Your task to perform on an android device: delete the emails in spam in the gmail app Image 0: 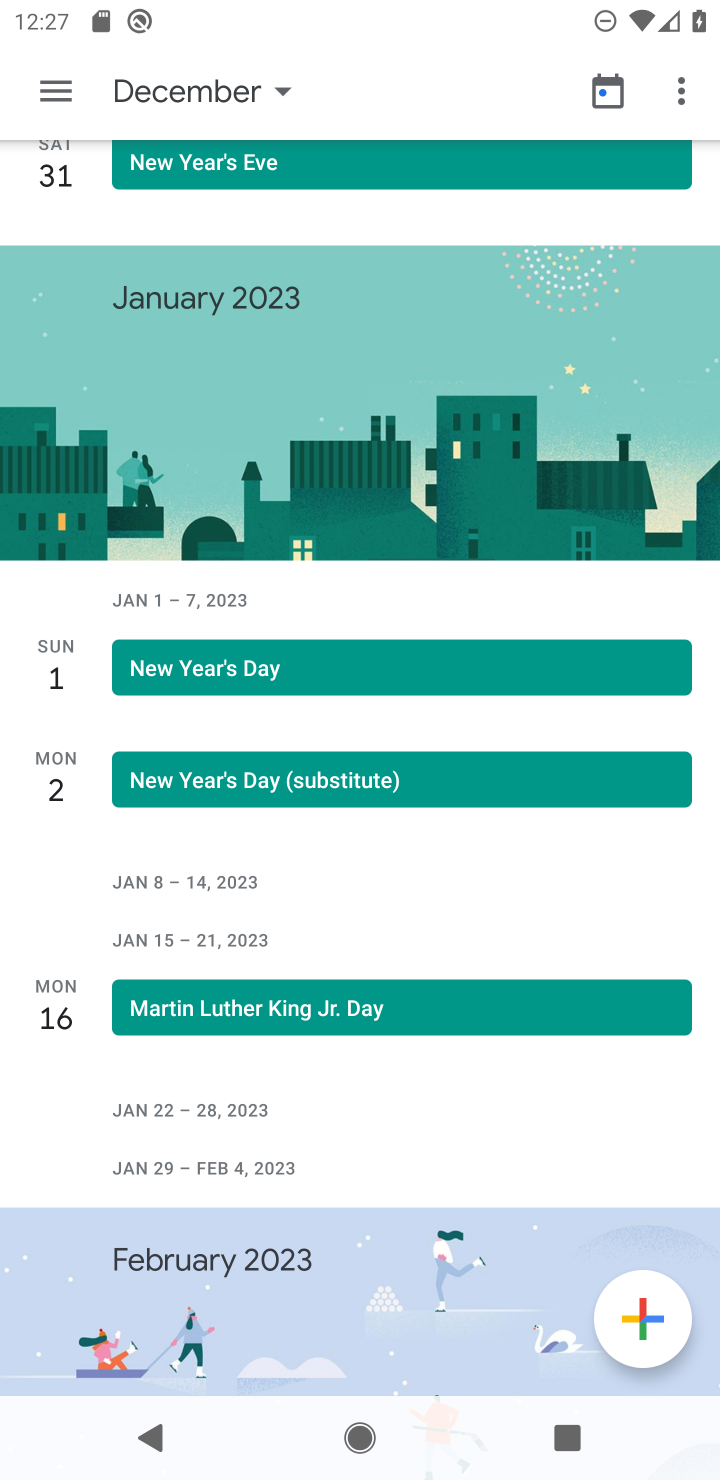
Step 0: press home button
Your task to perform on an android device: delete the emails in spam in the gmail app Image 1: 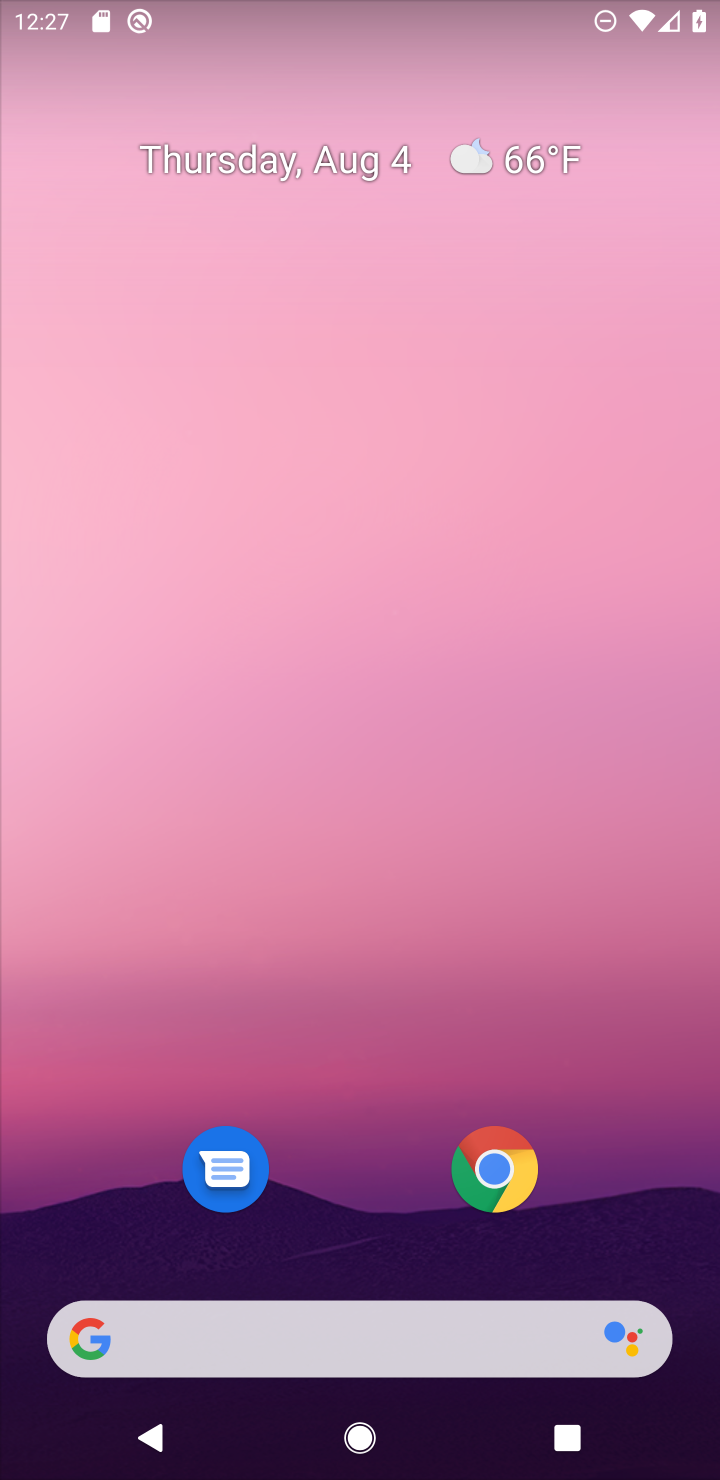
Step 1: drag from (401, 1256) to (449, 49)
Your task to perform on an android device: delete the emails in spam in the gmail app Image 2: 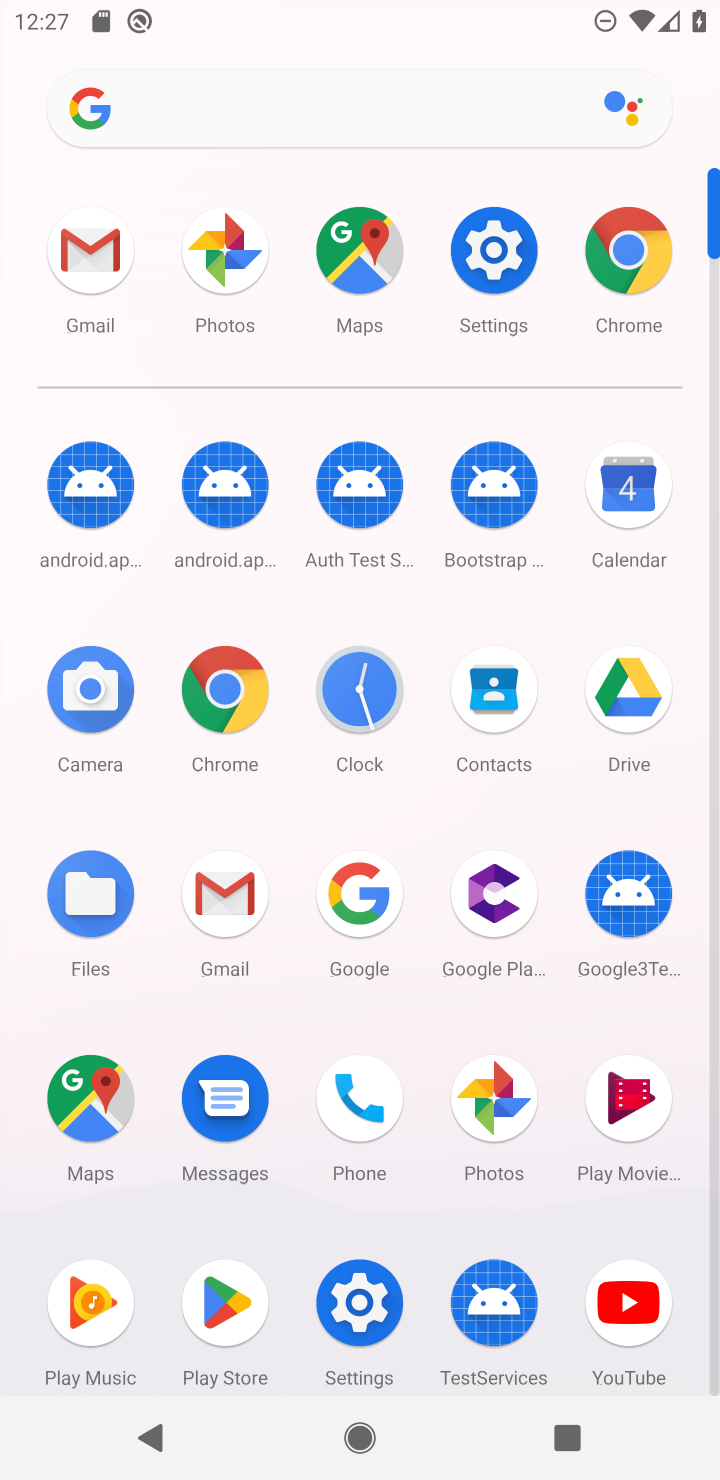
Step 2: click (70, 260)
Your task to perform on an android device: delete the emails in spam in the gmail app Image 3: 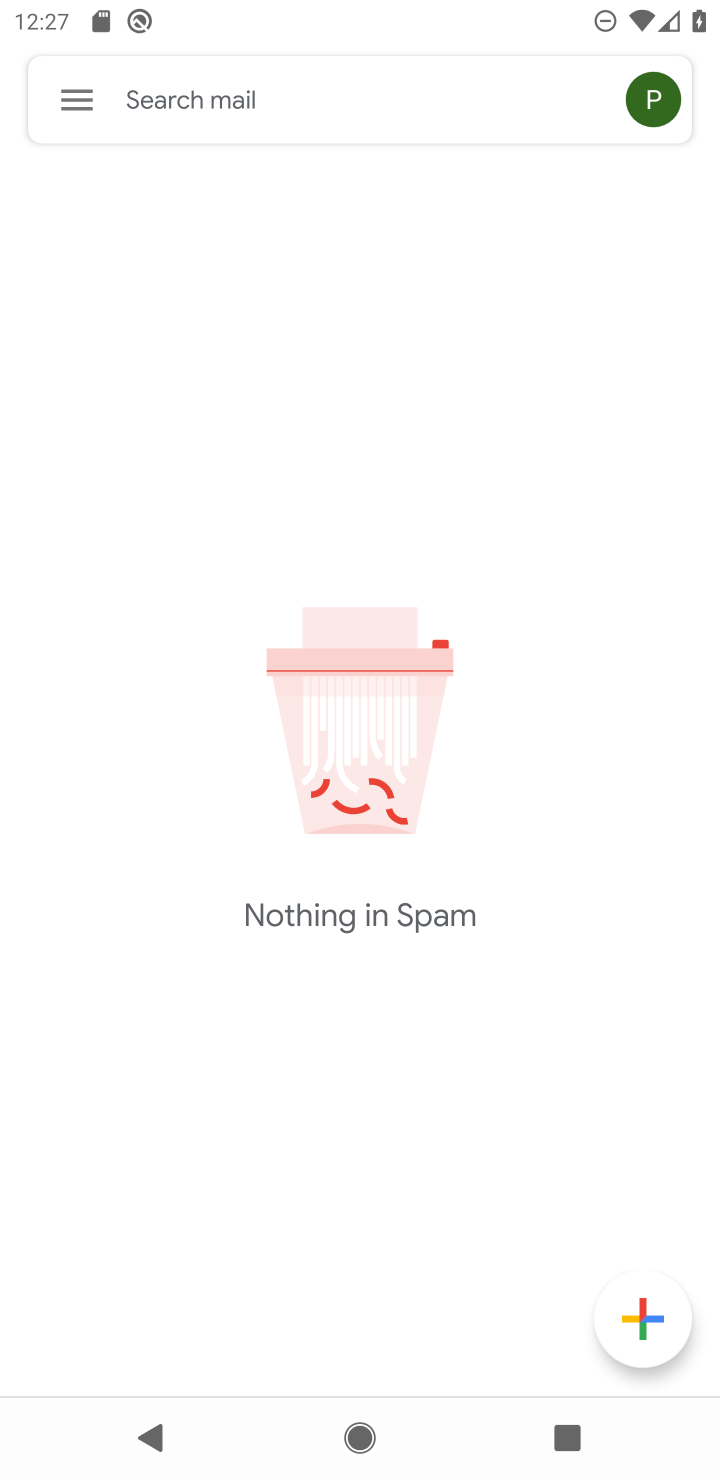
Step 3: task complete